Your task to perform on an android device: set the stopwatch Image 0: 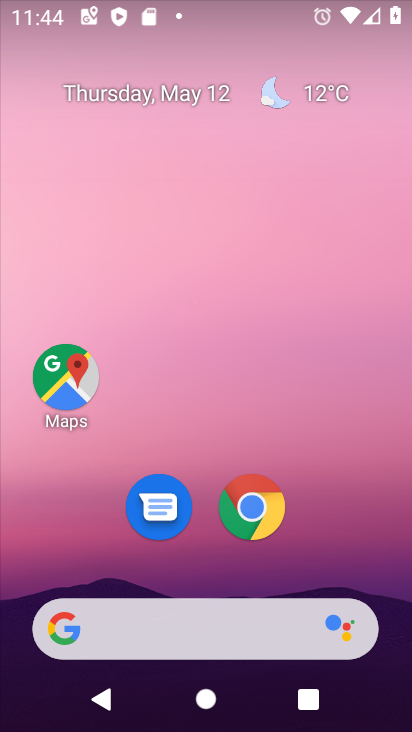
Step 0: drag from (198, 583) to (223, 101)
Your task to perform on an android device: set the stopwatch Image 1: 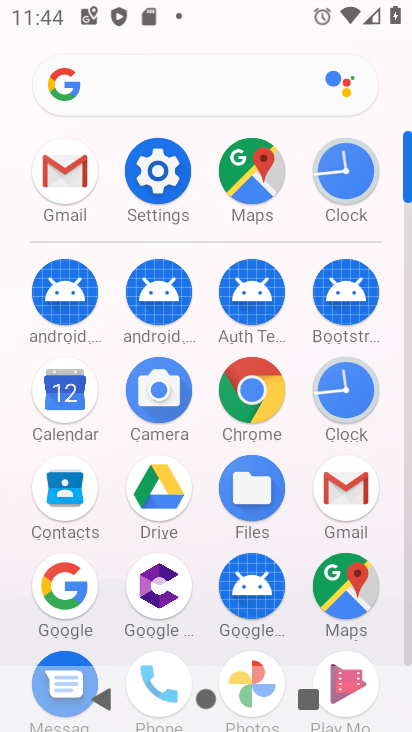
Step 1: click (333, 397)
Your task to perform on an android device: set the stopwatch Image 2: 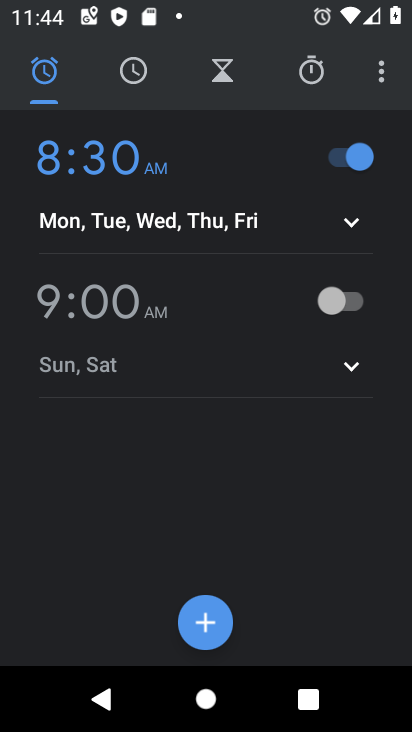
Step 2: click (300, 76)
Your task to perform on an android device: set the stopwatch Image 3: 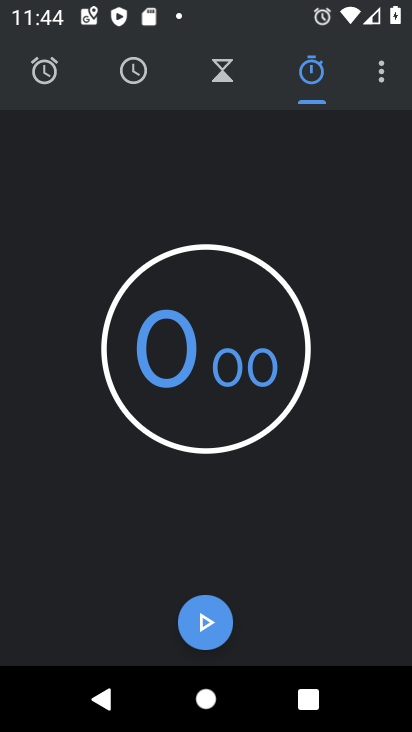
Step 3: click (180, 611)
Your task to perform on an android device: set the stopwatch Image 4: 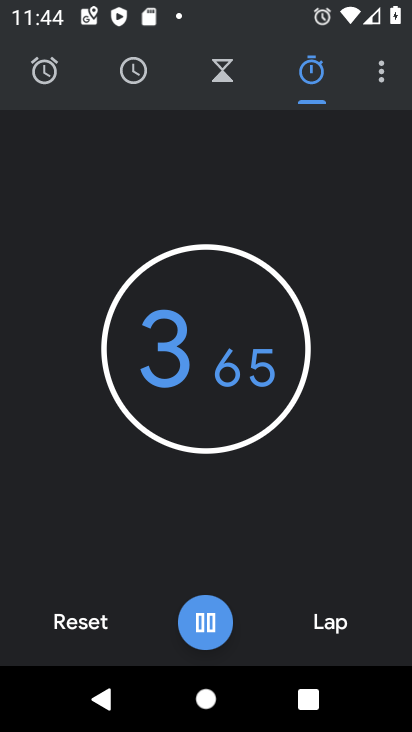
Step 4: task complete